Your task to perform on an android device: Open Google Maps and go to "Timeline" Image 0: 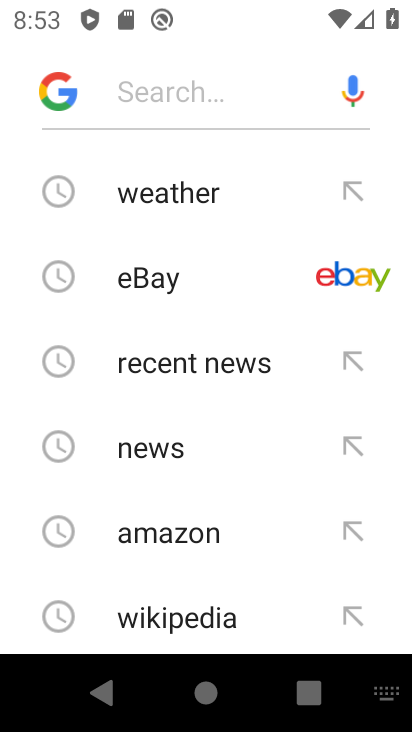
Step 0: press home button
Your task to perform on an android device: Open Google Maps and go to "Timeline" Image 1: 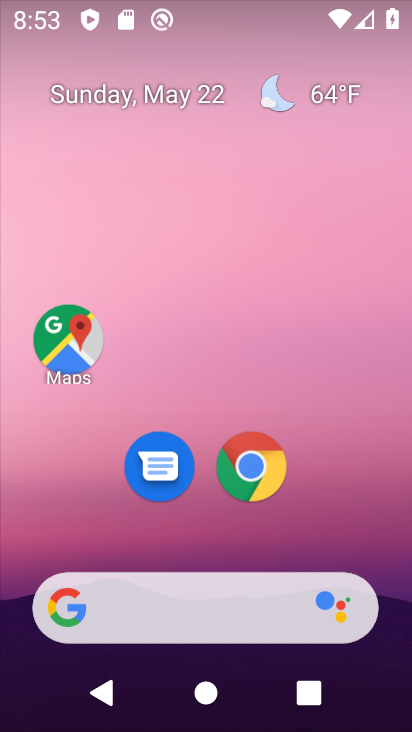
Step 1: click (72, 327)
Your task to perform on an android device: Open Google Maps and go to "Timeline" Image 2: 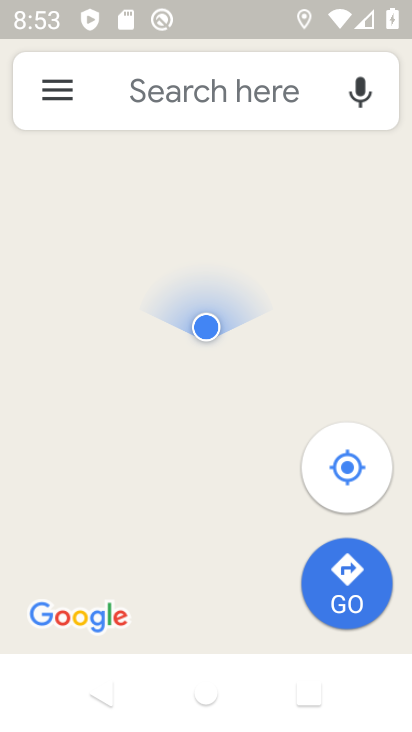
Step 2: click (51, 100)
Your task to perform on an android device: Open Google Maps and go to "Timeline" Image 3: 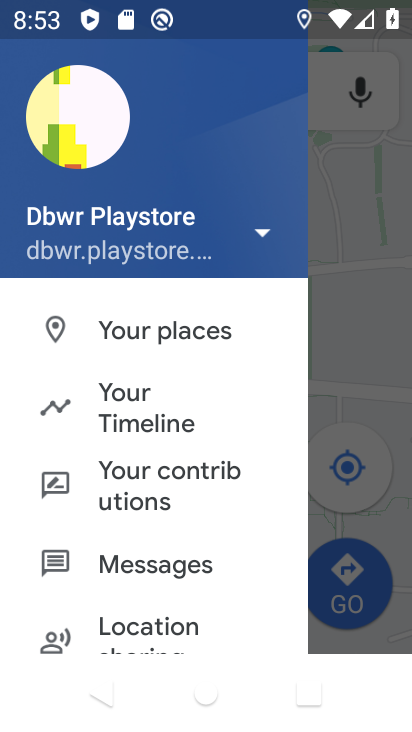
Step 3: click (135, 409)
Your task to perform on an android device: Open Google Maps and go to "Timeline" Image 4: 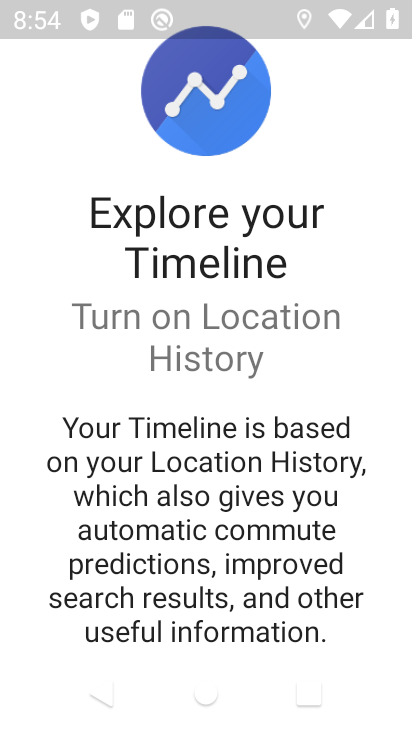
Step 4: drag from (206, 447) to (245, 154)
Your task to perform on an android device: Open Google Maps and go to "Timeline" Image 5: 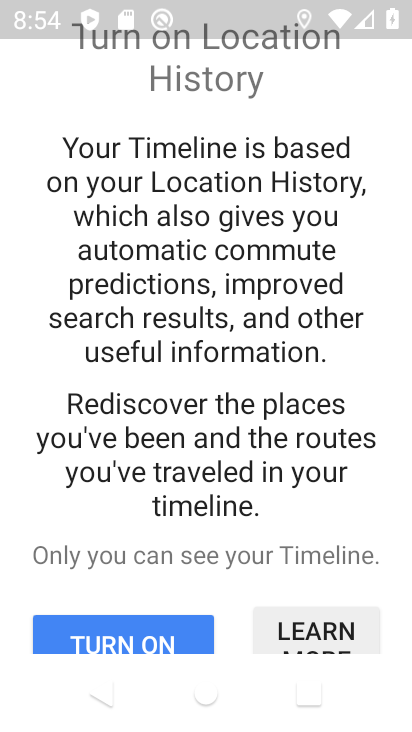
Step 5: click (128, 634)
Your task to perform on an android device: Open Google Maps and go to "Timeline" Image 6: 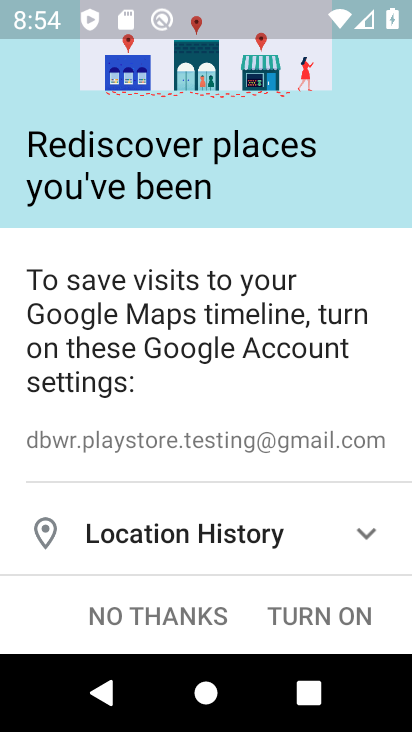
Step 6: click (200, 611)
Your task to perform on an android device: Open Google Maps and go to "Timeline" Image 7: 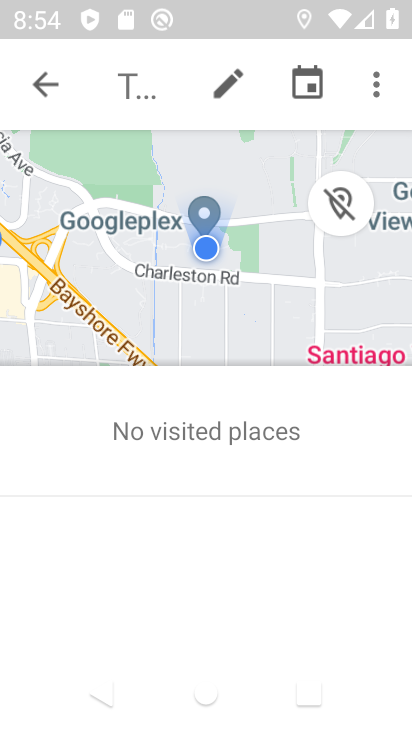
Step 7: task complete